Your task to perform on an android device: turn off location Image 0: 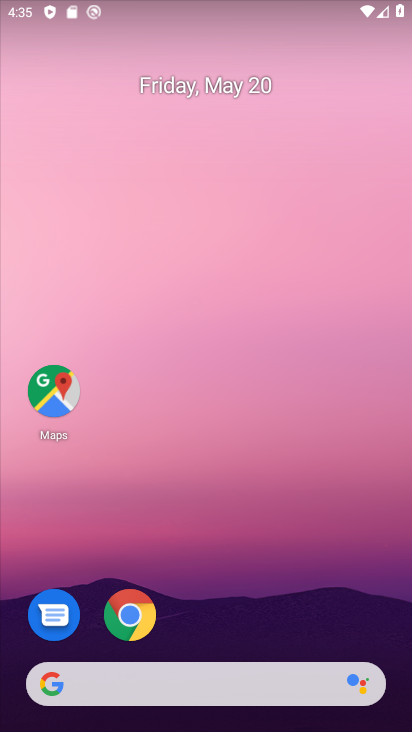
Step 0: drag from (274, 654) to (288, 218)
Your task to perform on an android device: turn off location Image 1: 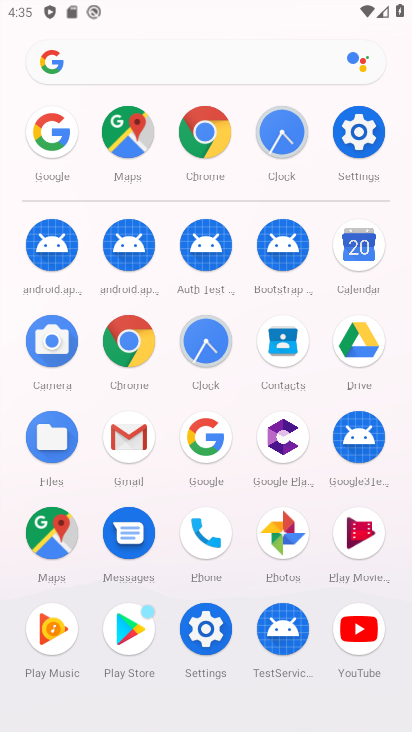
Step 1: click (357, 149)
Your task to perform on an android device: turn off location Image 2: 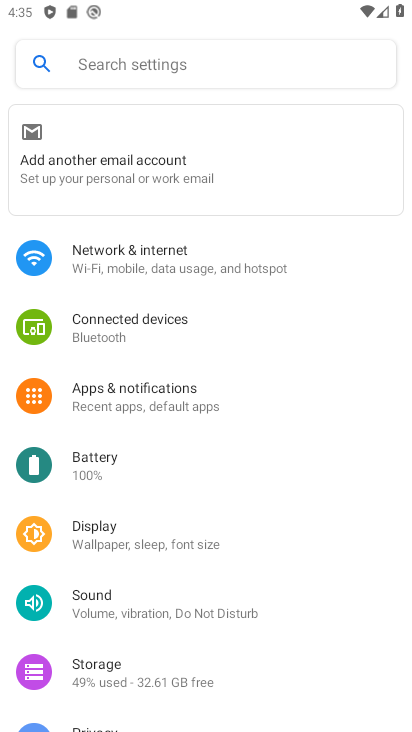
Step 2: drag from (184, 617) to (251, 103)
Your task to perform on an android device: turn off location Image 3: 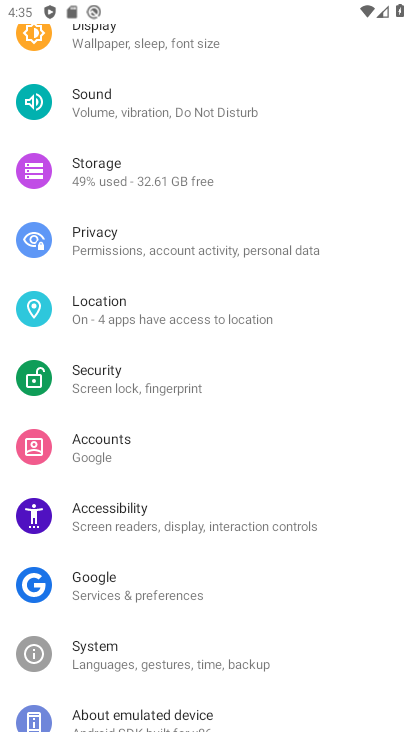
Step 3: click (189, 332)
Your task to perform on an android device: turn off location Image 4: 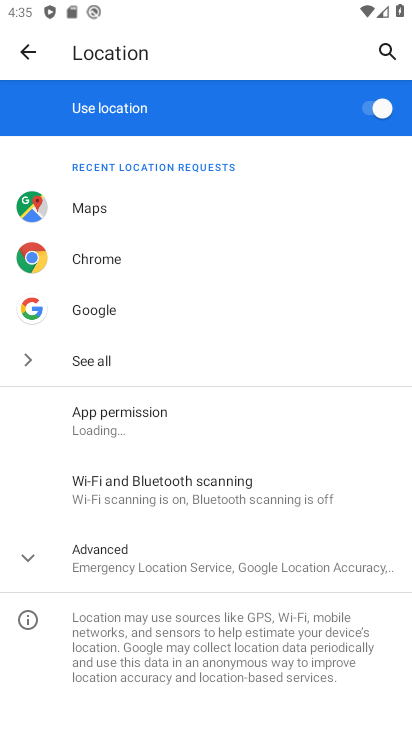
Step 4: click (363, 102)
Your task to perform on an android device: turn off location Image 5: 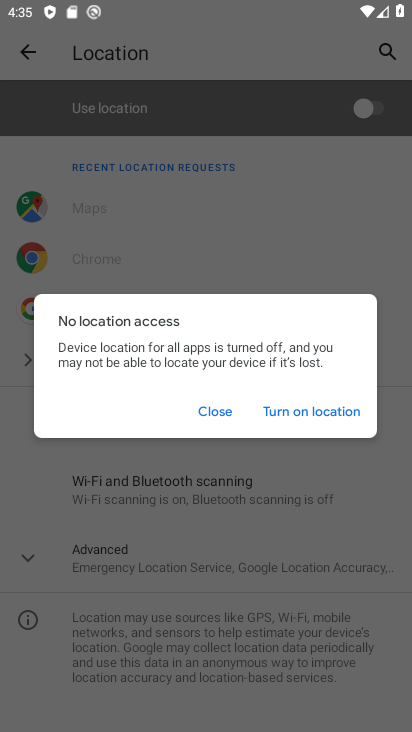
Step 5: task complete